Your task to perform on an android device: Open eBay Image 0: 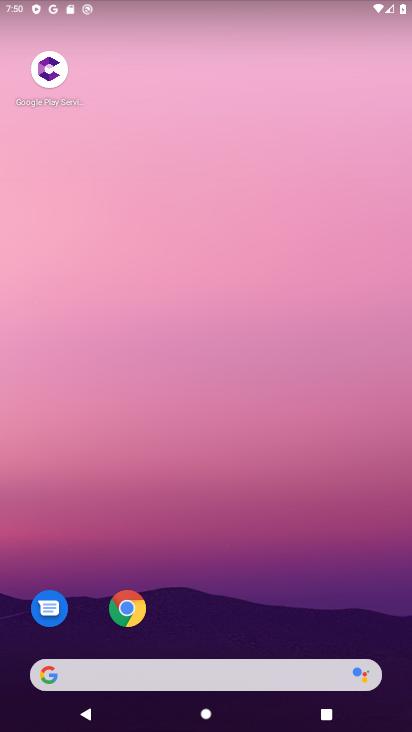
Step 0: click (123, 602)
Your task to perform on an android device: Open eBay Image 1: 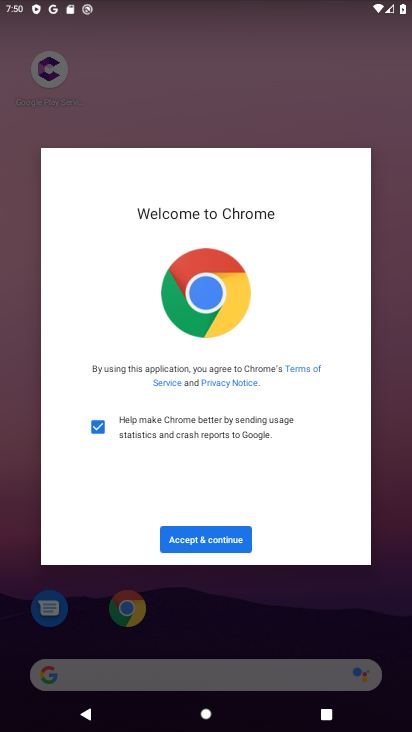
Step 1: click (228, 534)
Your task to perform on an android device: Open eBay Image 2: 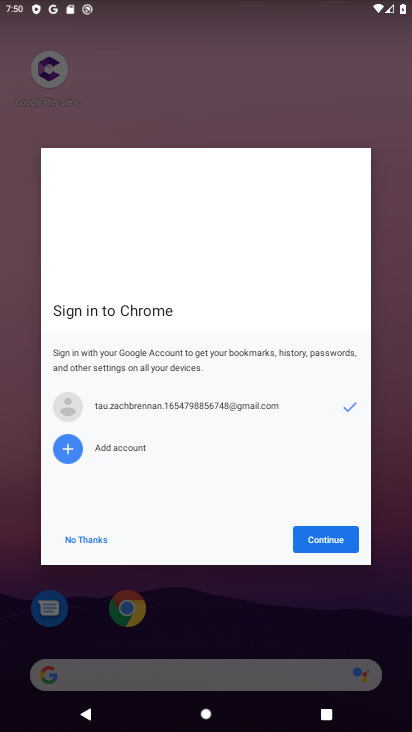
Step 2: click (330, 545)
Your task to perform on an android device: Open eBay Image 3: 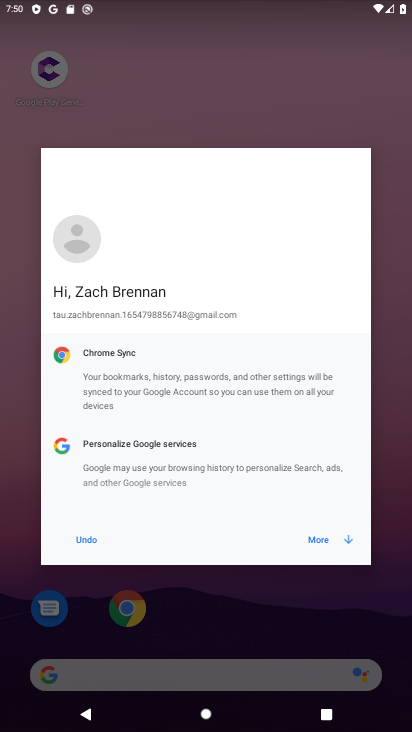
Step 3: click (323, 537)
Your task to perform on an android device: Open eBay Image 4: 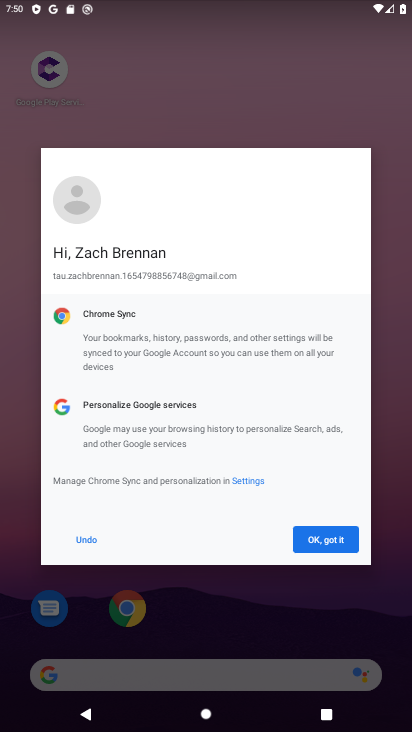
Step 4: click (323, 537)
Your task to perform on an android device: Open eBay Image 5: 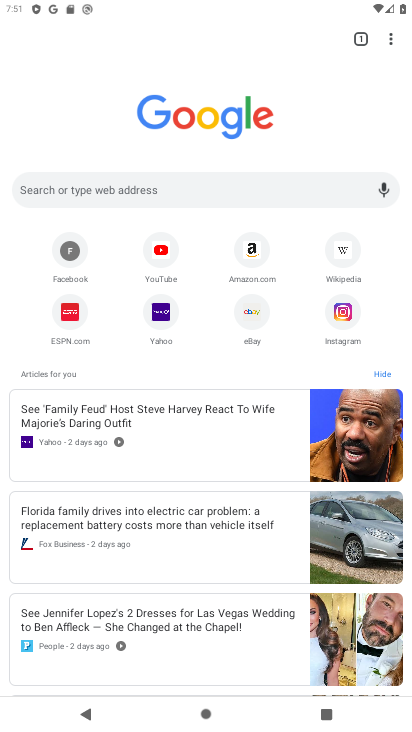
Step 5: click (228, 178)
Your task to perform on an android device: Open eBay Image 6: 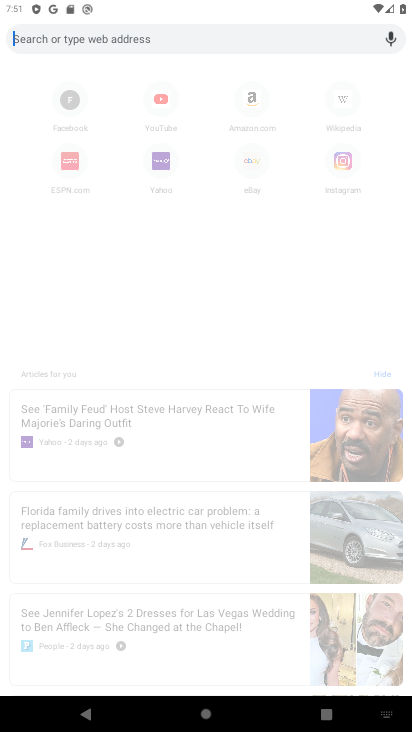
Step 6: type "eBay"
Your task to perform on an android device: Open eBay Image 7: 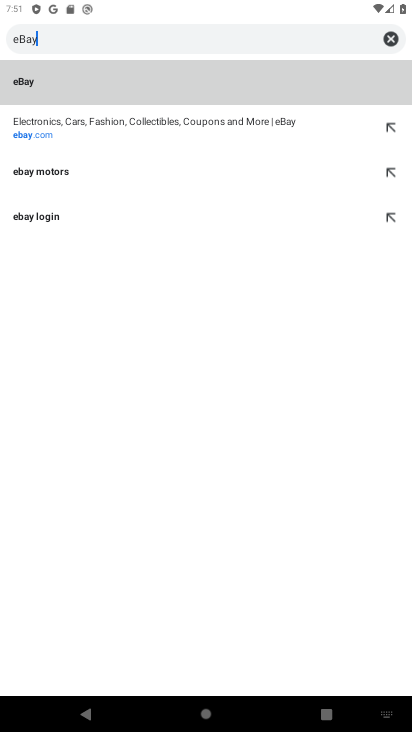
Step 7: click (37, 83)
Your task to perform on an android device: Open eBay Image 8: 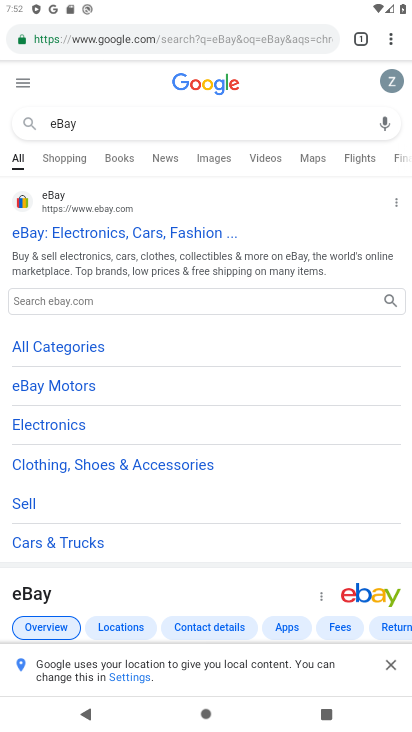
Step 8: task complete